Your task to perform on an android device: Check the news Image 0: 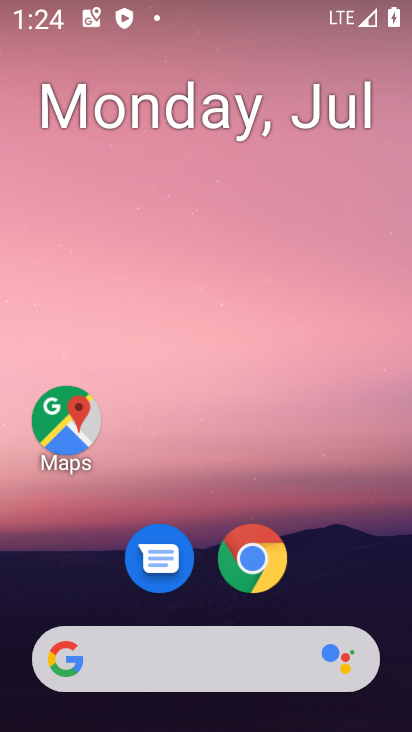
Step 0: drag from (0, 261) to (377, 346)
Your task to perform on an android device: Check the news Image 1: 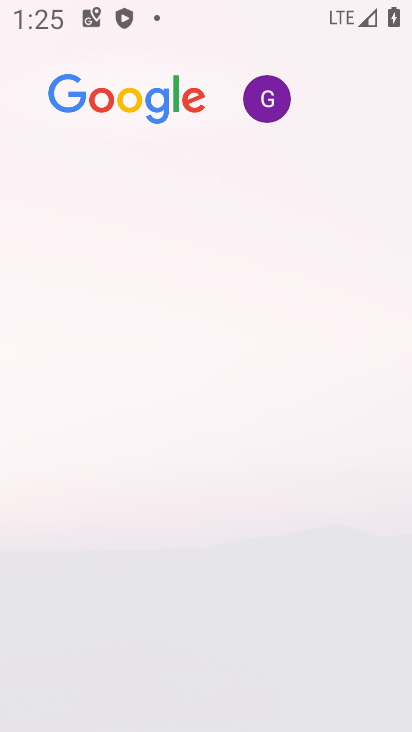
Step 1: task complete